Your task to perform on an android device: turn notification dots off Image 0: 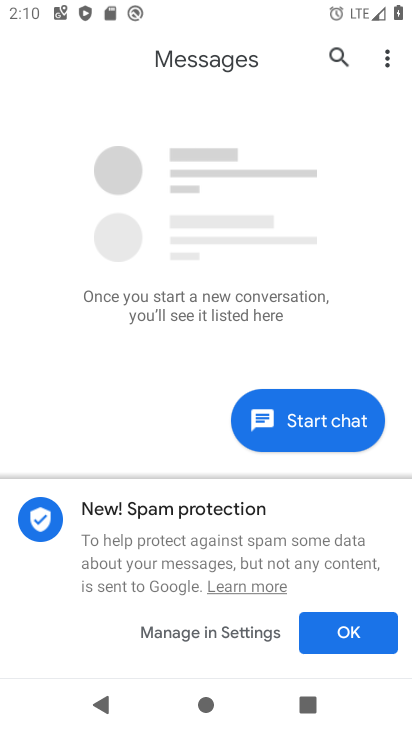
Step 0: press home button
Your task to perform on an android device: turn notification dots off Image 1: 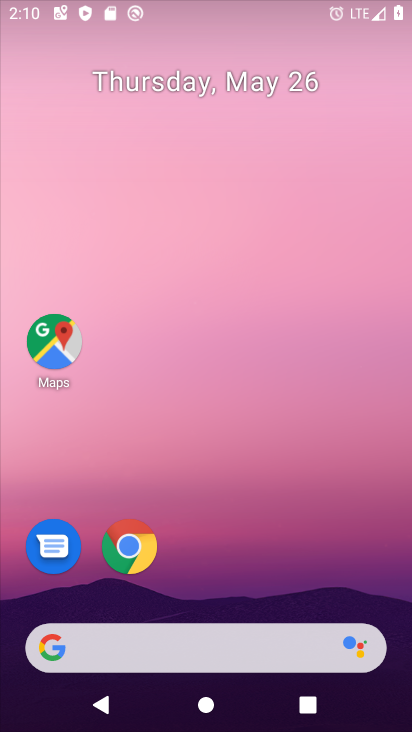
Step 1: drag from (240, 578) to (274, 51)
Your task to perform on an android device: turn notification dots off Image 2: 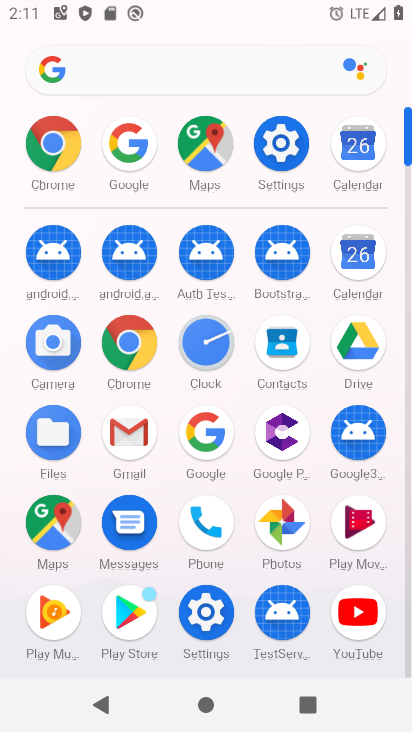
Step 2: click (282, 200)
Your task to perform on an android device: turn notification dots off Image 3: 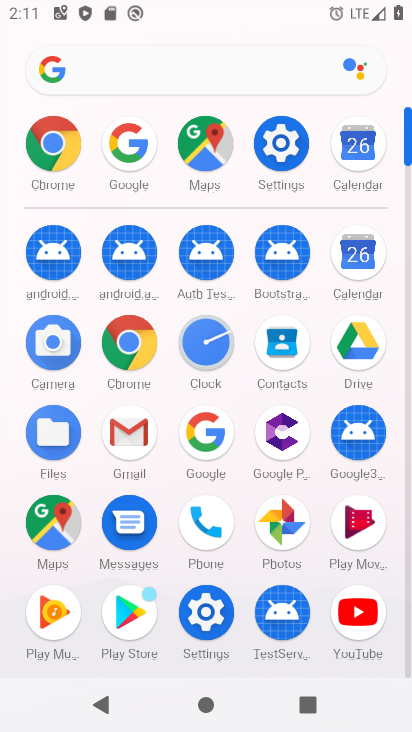
Step 3: click (294, 138)
Your task to perform on an android device: turn notification dots off Image 4: 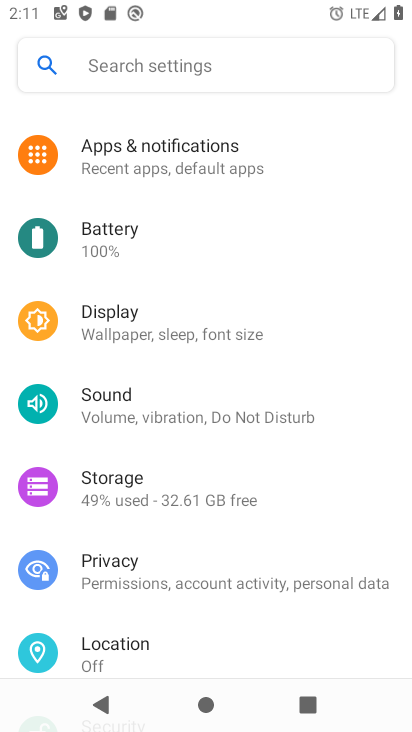
Step 4: click (171, 176)
Your task to perform on an android device: turn notification dots off Image 5: 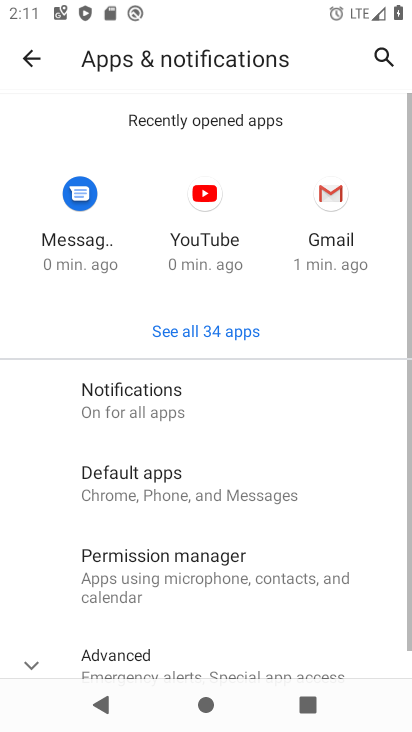
Step 5: click (206, 369)
Your task to perform on an android device: turn notification dots off Image 6: 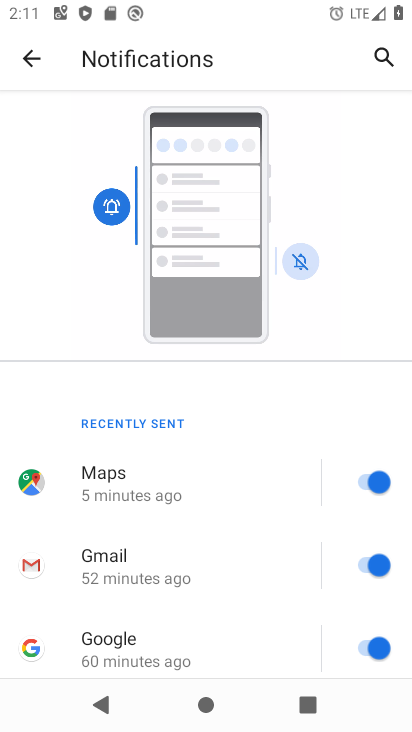
Step 6: drag from (222, 605) to (275, 51)
Your task to perform on an android device: turn notification dots off Image 7: 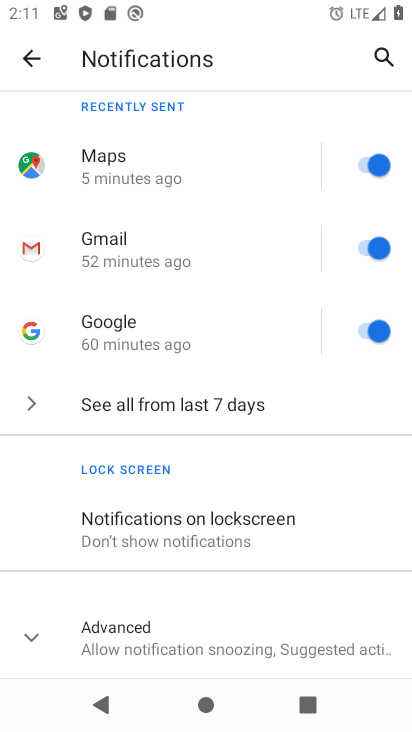
Step 7: click (132, 650)
Your task to perform on an android device: turn notification dots off Image 8: 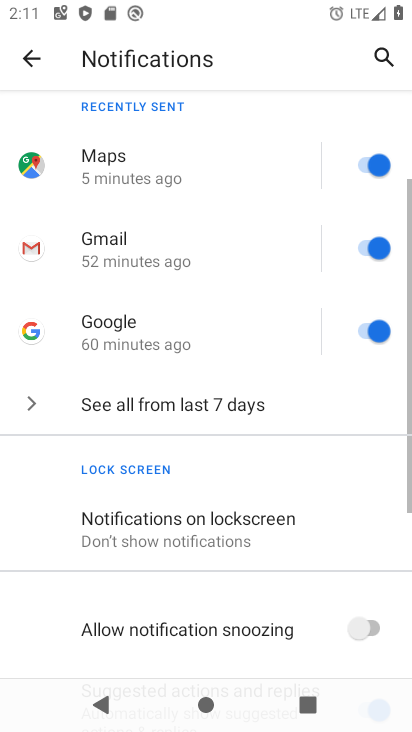
Step 8: drag from (241, 603) to (257, 284)
Your task to perform on an android device: turn notification dots off Image 9: 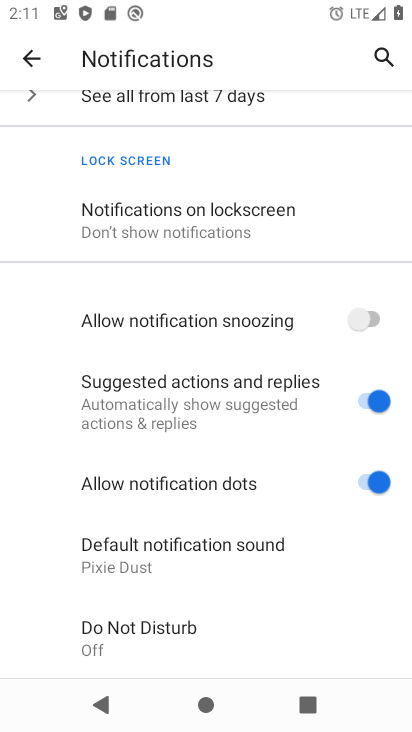
Step 9: click (367, 475)
Your task to perform on an android device: turn notification dots off Image 10: 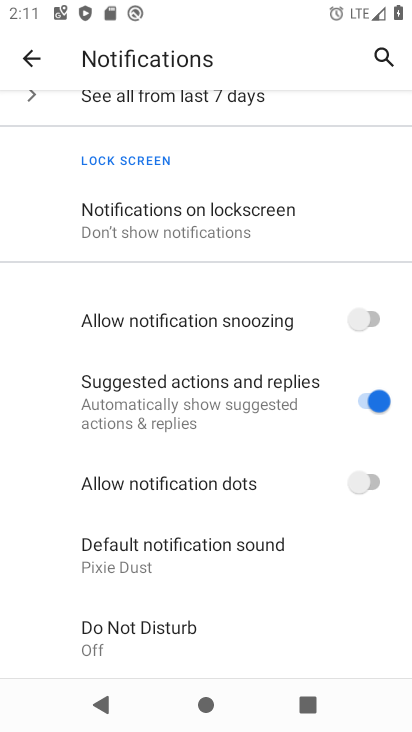
Step 10: task complete